Your task to perform on an android device: star an email in the gmail app Image 0: 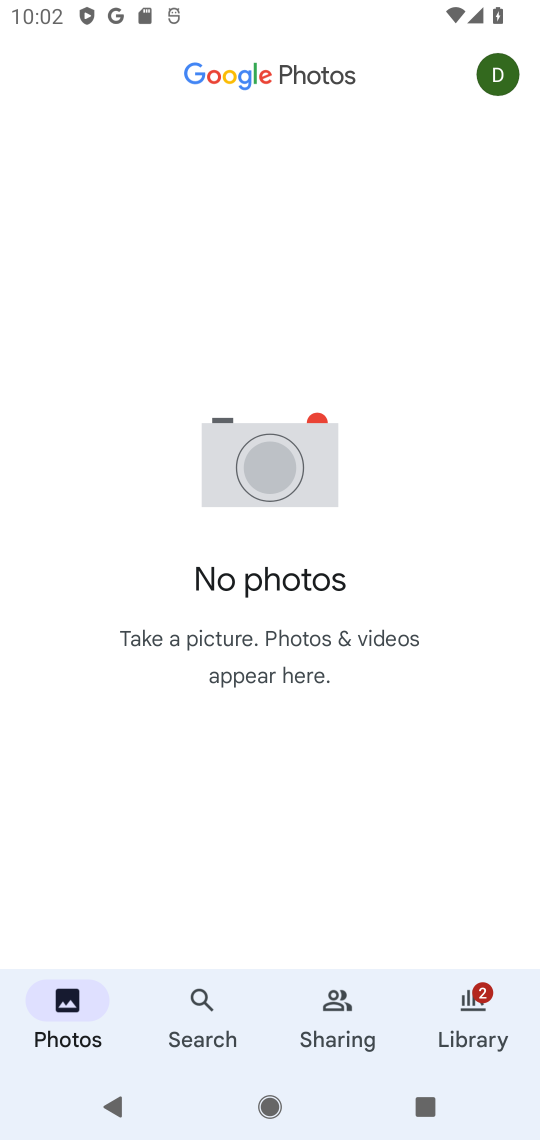
Step 0: press home button
Your task to perform on an android device: star an email in the gmail app Image 1: 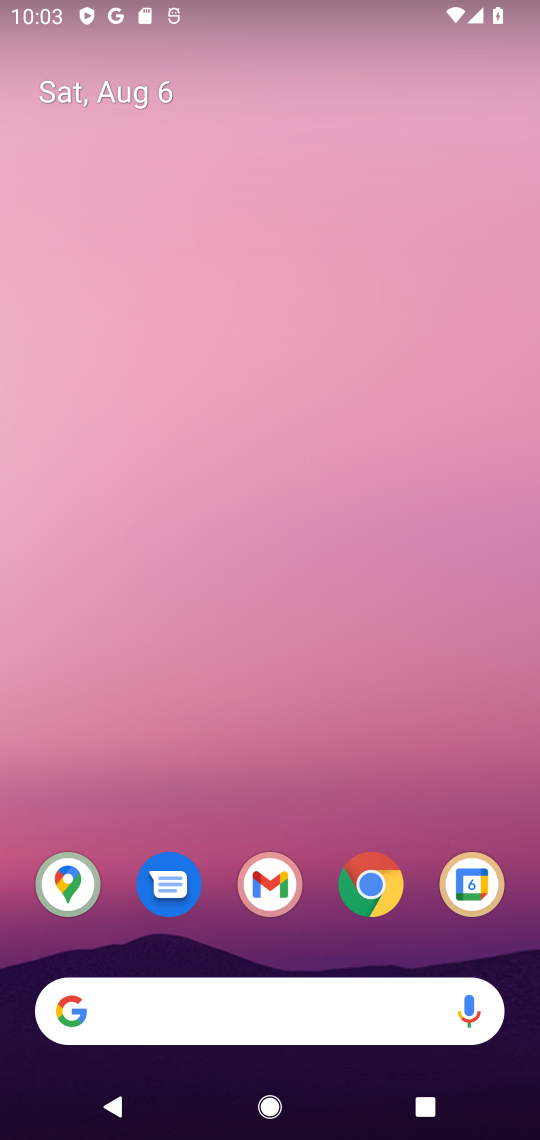
Step 1: click (271, 886)
Your task to perform on an android device: star an email in the gmail app Image 2: 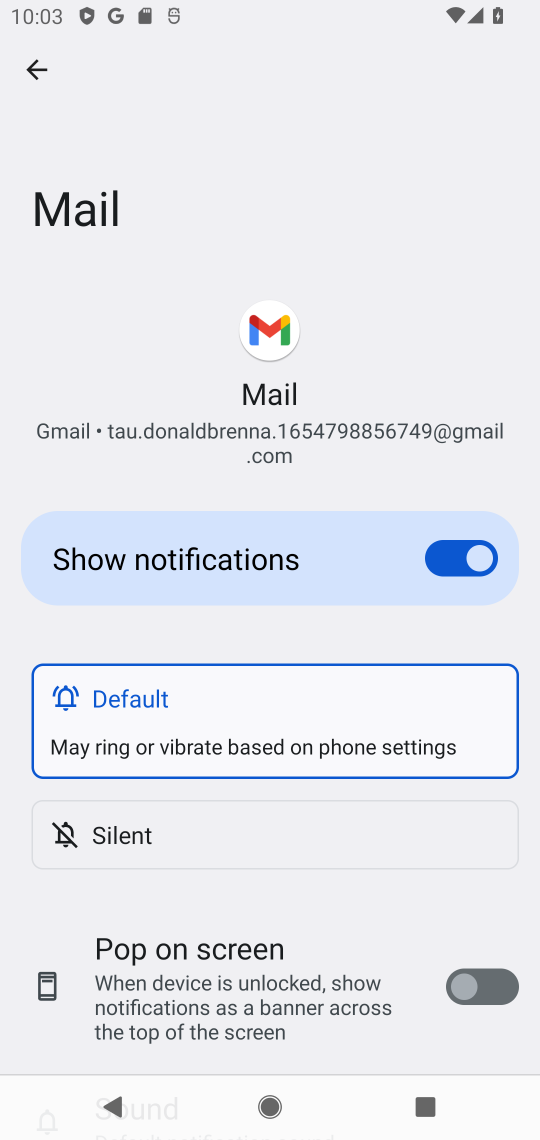
Step 2: press back button
Your task to perform on an android device: star an email in the gmail app Image 3: 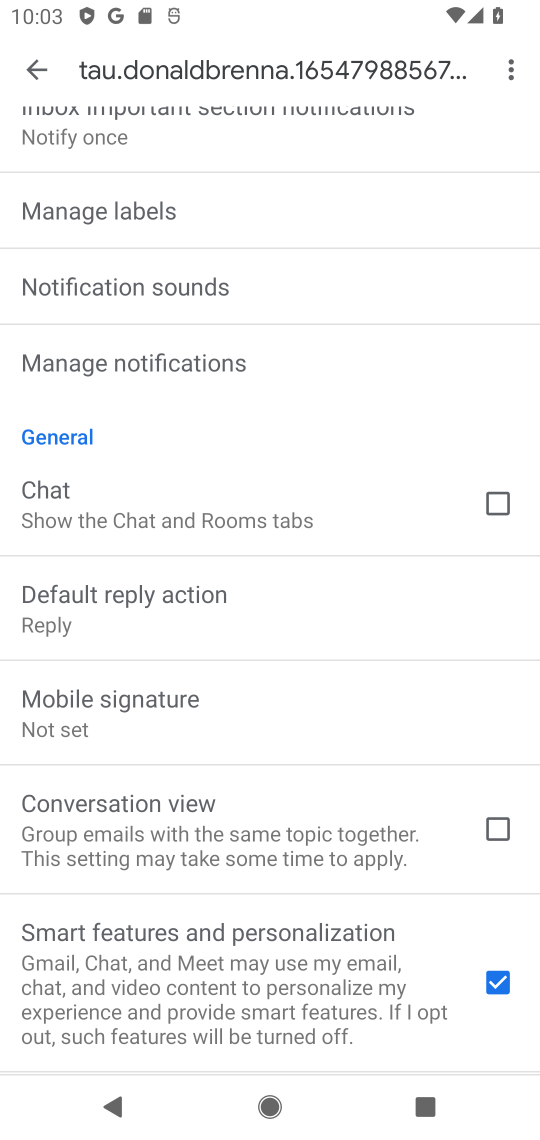
Step 3: press back button
Your task to perform on an android device: star an email in the gmail app Image 4: 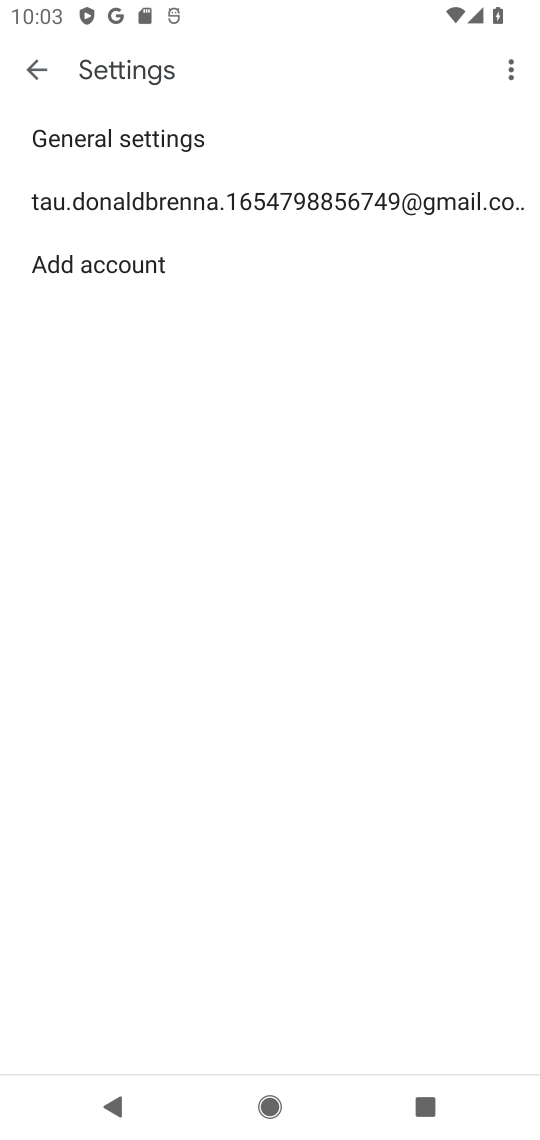
Step 4: press back button
Your task to perform on an android device: star an email in the gmail app Image 5: 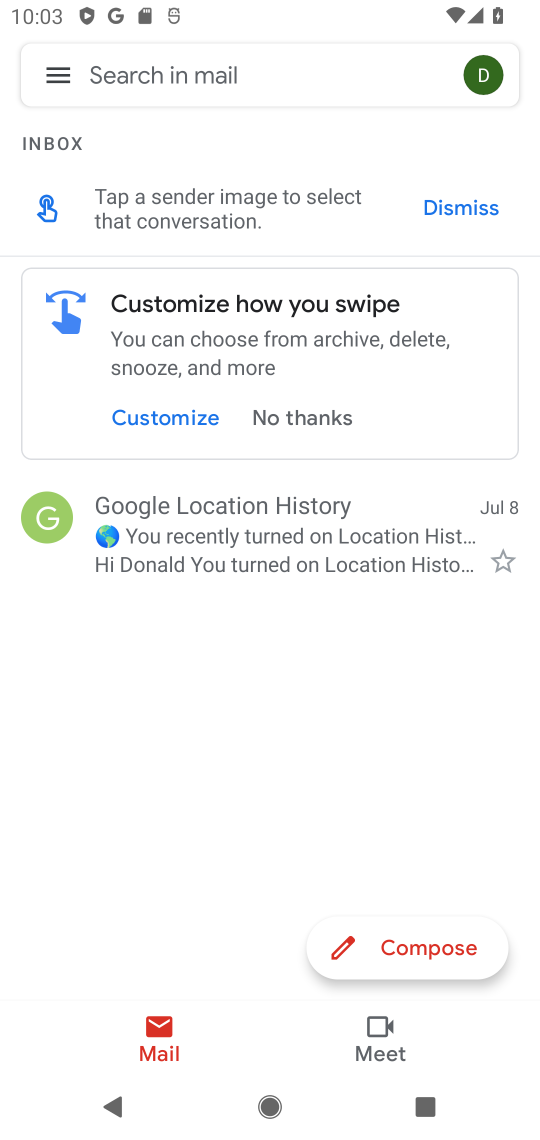
Step 5: click (508, 557)
Your task to perform on an android device: star an email in the gmail app Image 6: 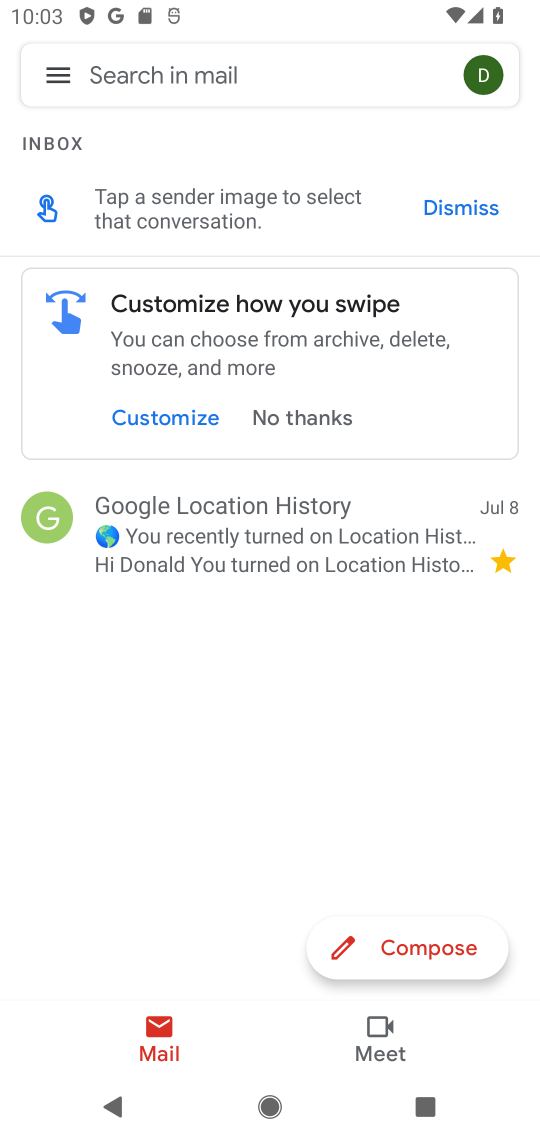
Step 6: task complete